Your task to perform on an android device: turn on translation in the chrome app Image 0: 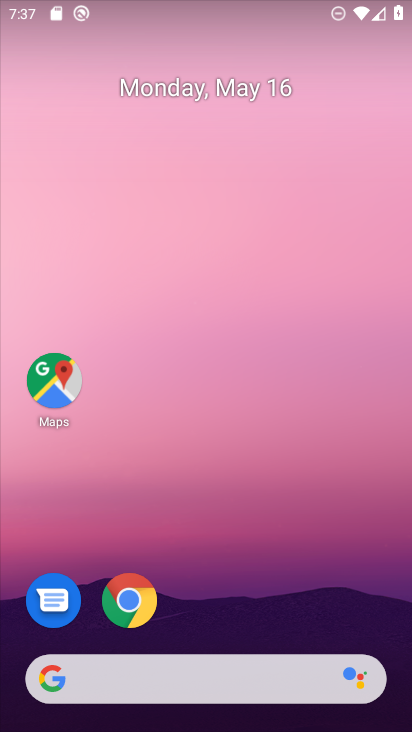
Step 0: click (122, 604)
Your task to perform on an android device: turn on translation in the chrome app Image 1: 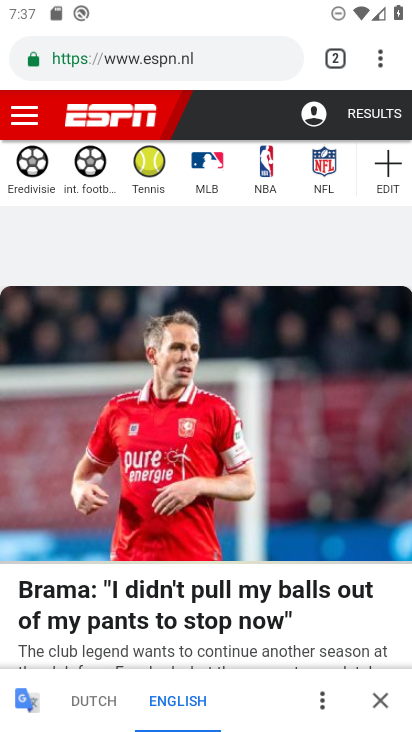
Step 1: drag from (380, 64) to (204, 645)
Your task to perform on an android device: turn on translation in the chrome app Image 2: 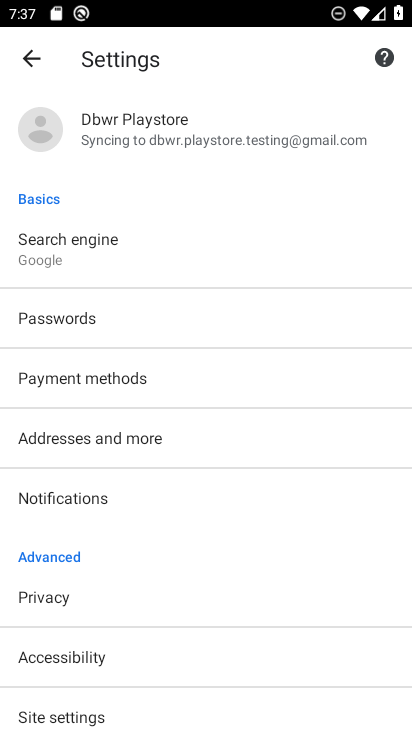
Step 2: drag from (110, 661) to (193, 338)
Your task to perform on an android device: turn on translation in the chrome app Image 3: 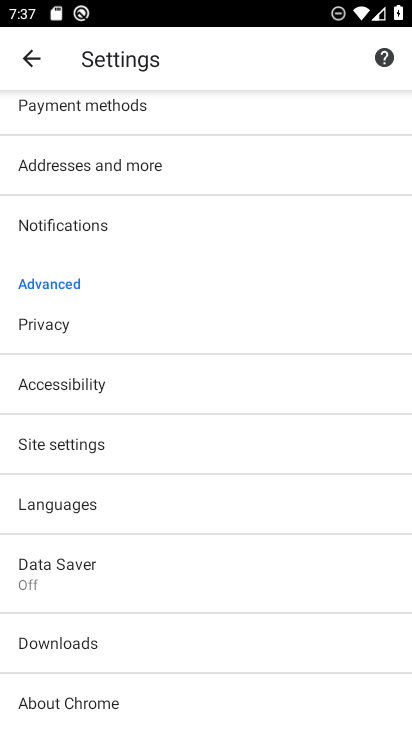
Step 3: click (66, 503)
Your task to perform on an android device: turn on translation in the chrome app Image 4: 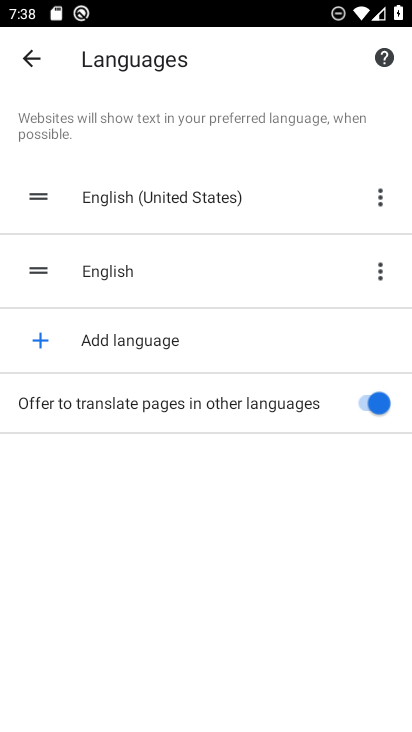
Step 4: task complete